Your task to perform on an android device: turn on priority inbox in the gmail app Image 0: 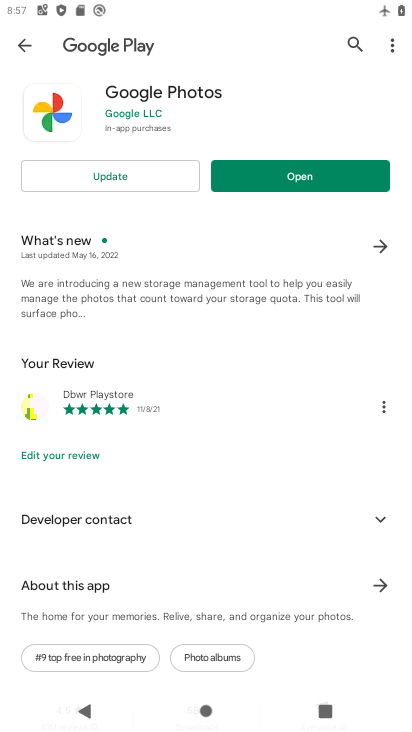
Step 0: press home button
Your task to perform on an android device: turn on priority inbox in the gmail app Image 1: 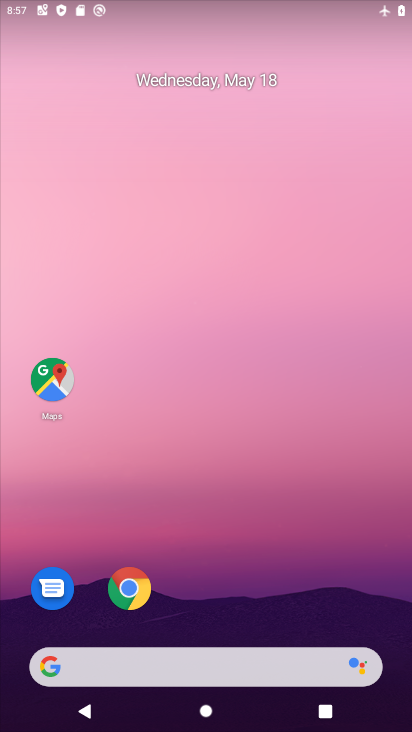
Step 1: drag from (360, 611) to (294, 11)
Your task to perform on an android device: turn on priority inbox in the gmail app Image 2: 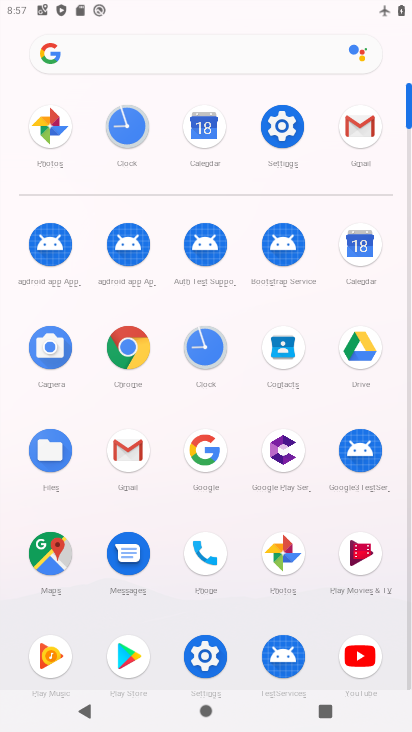
Step 2: click (364, 134)
Your task to perform on an android device: turn on priority inbox in the gmail app Image 3: 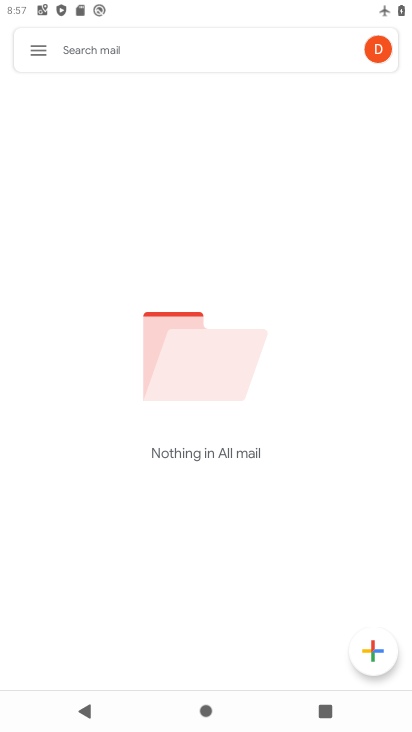
Step 3: click (32, 51)
Your task to perform on an android device: turn on priority inbox in the gmail app Image 4: 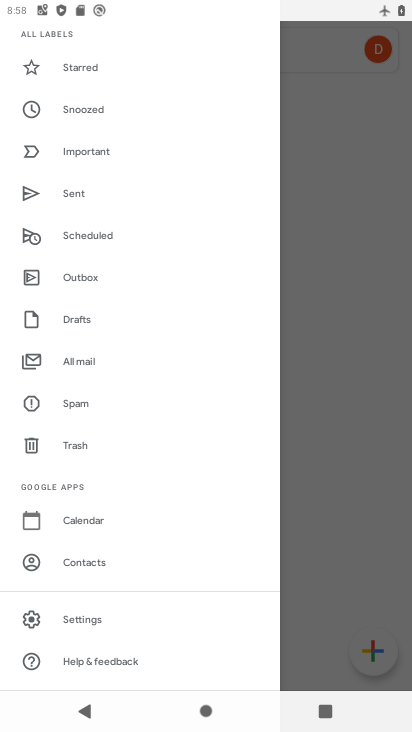
Step 4: click (78, 619)
Your task to perform on an android device: turn on priority inbox in the gmail app Image 5: 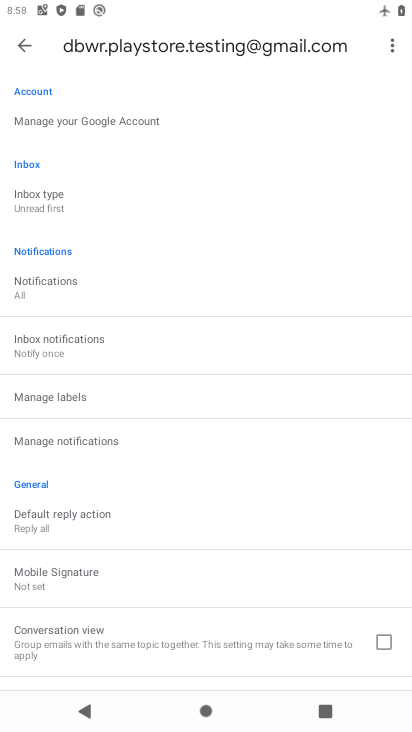
Step 5: click (50, 199)
Your task to perform on an android device: turn on priority inbox in the gmail app Image 6: 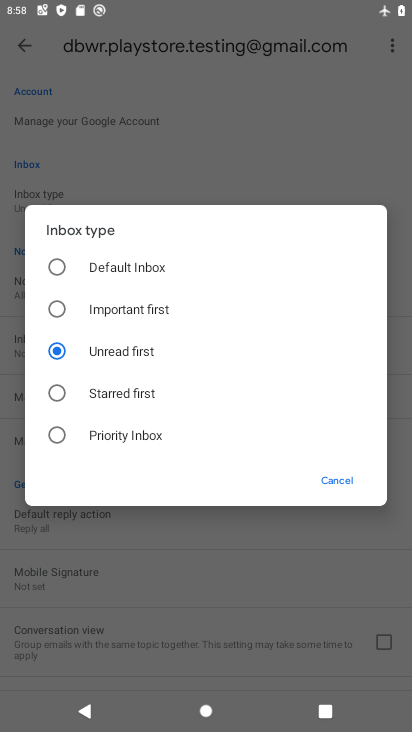
Step 6: click (65, 435)
Your task to perform on an android device: turn on priority inbox in the gmail app Image 7: 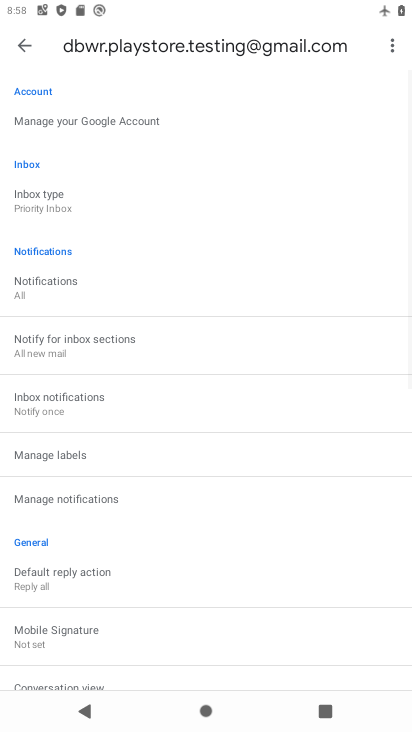
Step 7: task complete